Your task to perform on an android device: open chrome and create a bookmark for the current page Image 0: 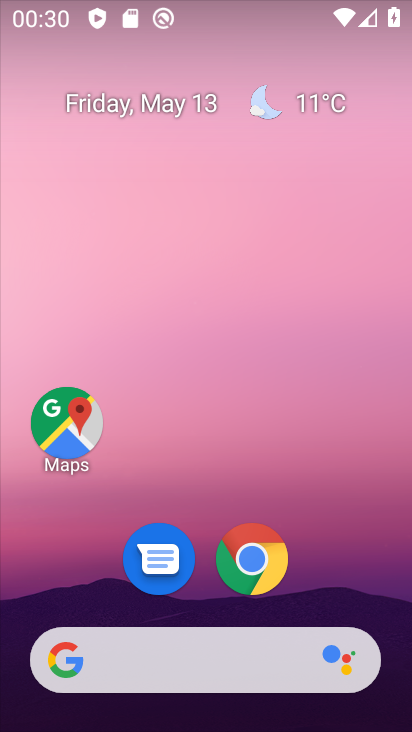
Step 0: click (254, 560)
Your task to perform on an android device: open chrome and create a bookmark for the current page Image 1: 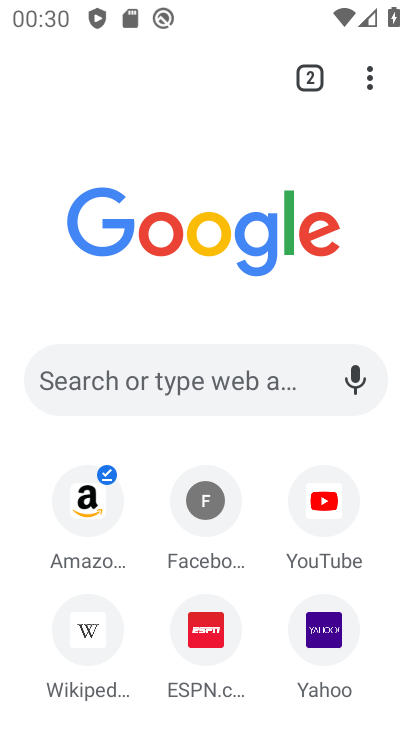
Step 1: click (361, 82)
Your task to perform on an android device: open chrome and create a bookmark for the current page Image 2: 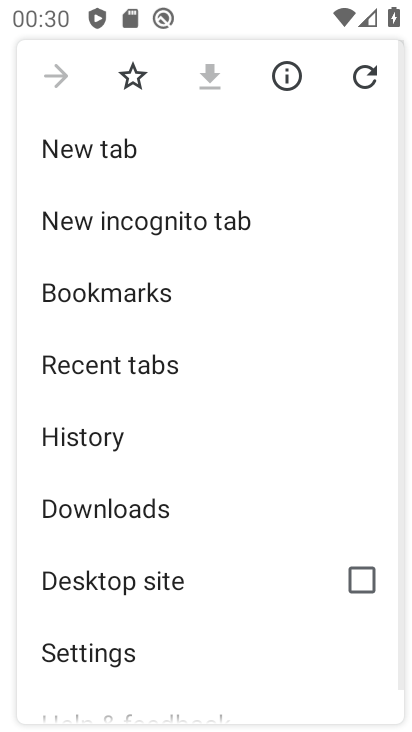
Step 2: click (132, 97)
Your task to perform on an android device: open chrome and create a bookmark for the current page Image 3: 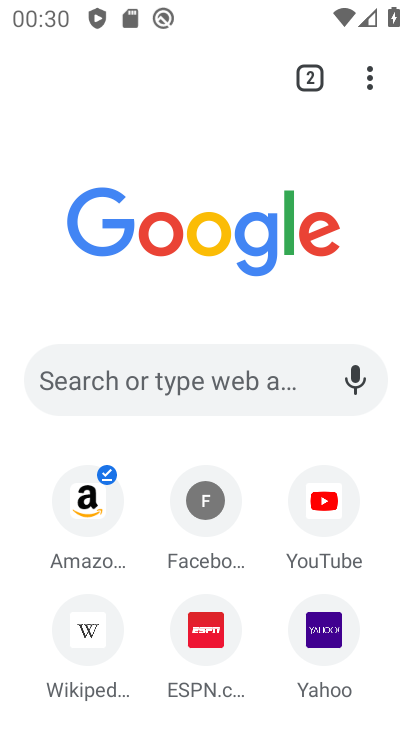
Step 3: task complete